Your task to perform on an android device: Open ESPN.com Image 0: 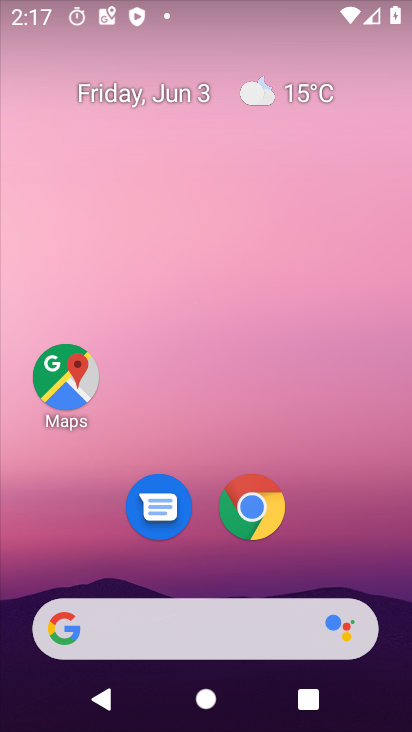
Step 0: drag from (385, 655) to (1, 364)
Your task to perform on an android device: Open ESPN.com Image 1: 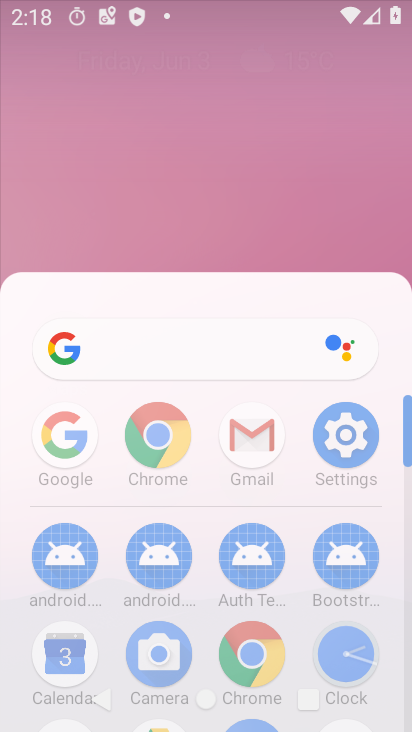
Step 1: click (82, 598)
Your task to perform on an android device: Open ESPN.com Image 2: 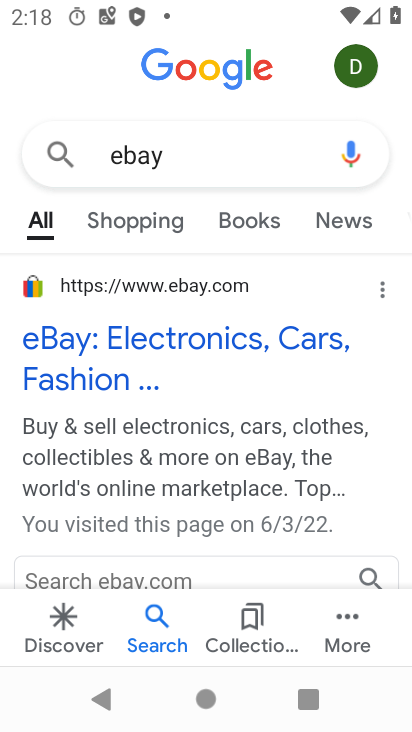
Step 2: press back button
Your task to perform on an android device: Open ESPN.com Image 3: 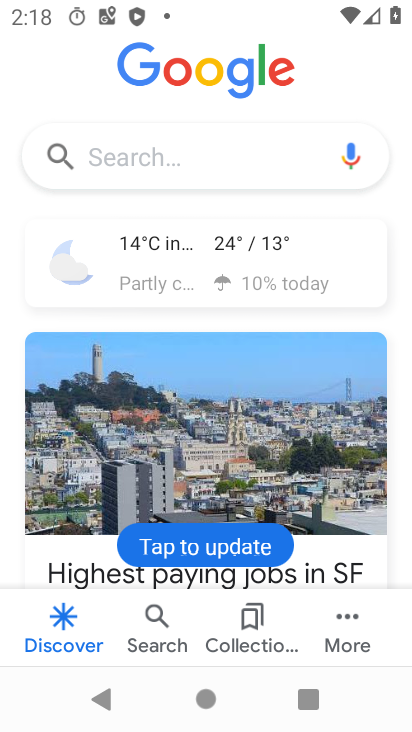
Step 3: click (130, 159)
Your task to perform on an android device: Open ESPN.com Image 4: 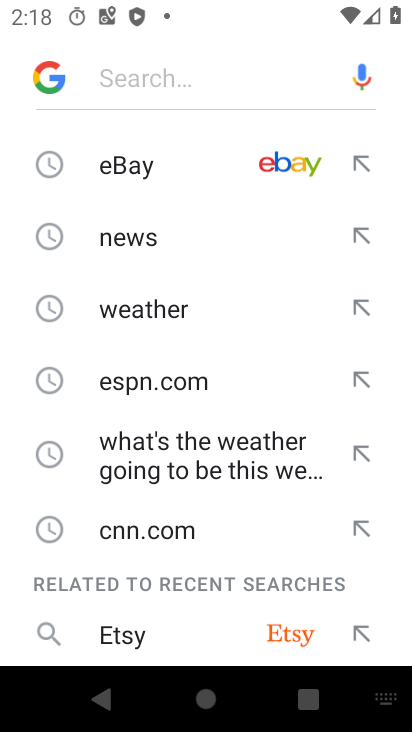
Step 4: click (210, 385)
Your task to perform on an android device: Open ESPN.com Image 5: 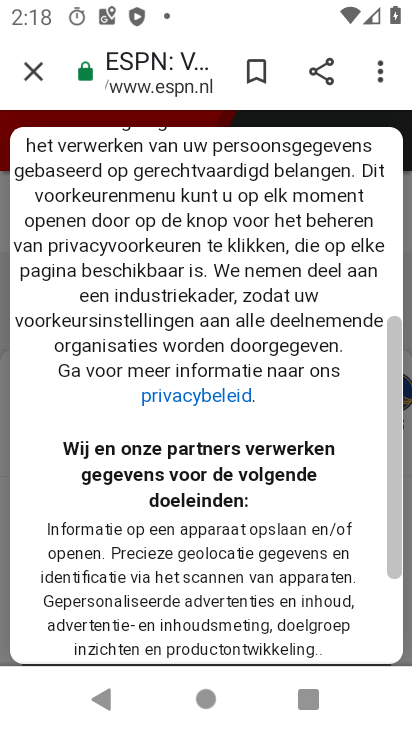
Step 5: task complete